Your task to perform on an android device: Open the Play Movies app and select the watchlist tab. Image 0: 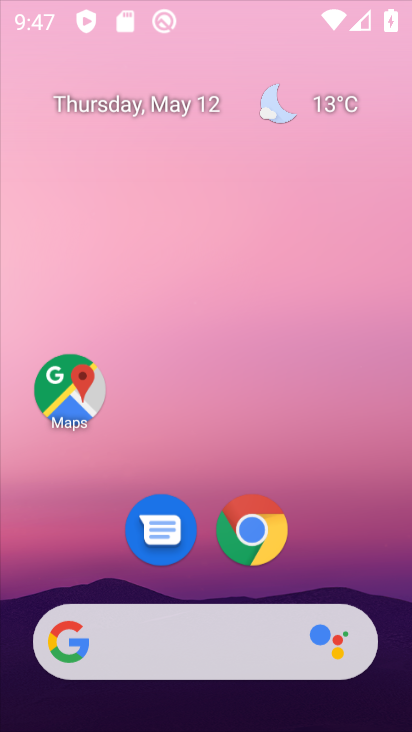
Step 0: drag from (335, 561) to (305, 51)
Your task to perform on an android device: Open the Play Movies app and select the watchlist tab. Image 1: 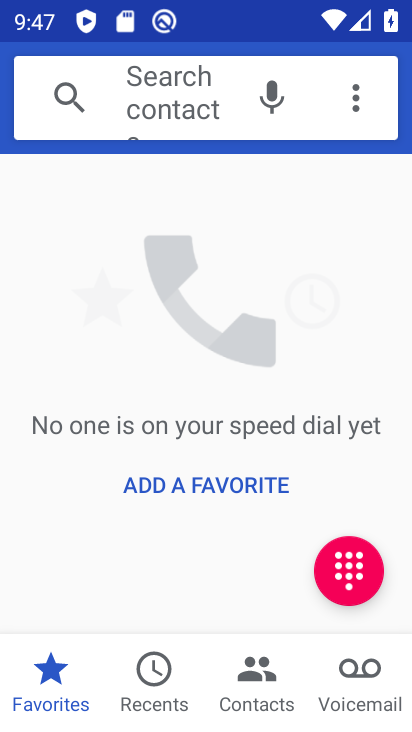
Step 1: press home button
Your task to perform on an android device: Open the Play Movies app and select the watchlist tab. Image 2: 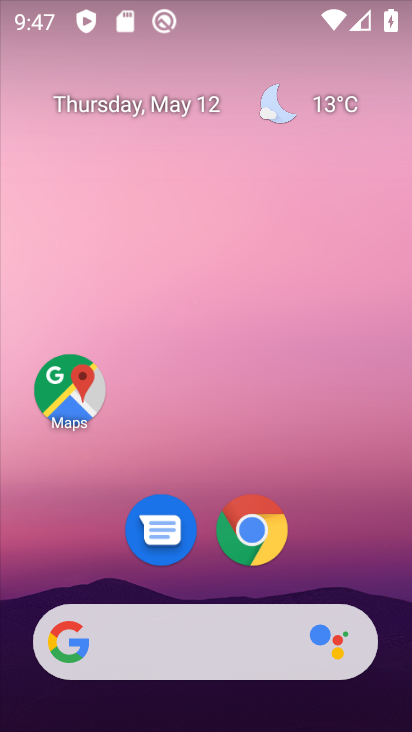
Step 2: drag from (346, 451) to (362, 74)
Your task to perform on an android device: Open the Play Movies app and select the watchlist tab. Image 3: 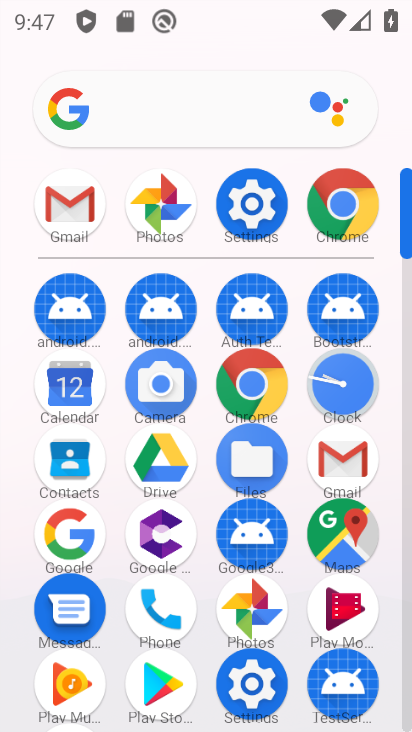
Step 3: click (332, 608)
Your task to perform on an android device: Open the Play Movies app and select the watchlist tab. Image 4: 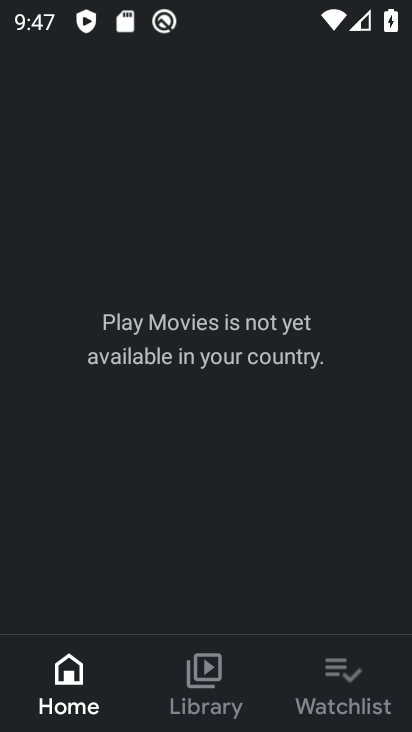
Step 4: click (335, 670)
Your task to perform on an android device: Open the Play Movies app and select the watchlist tab. Image 5: 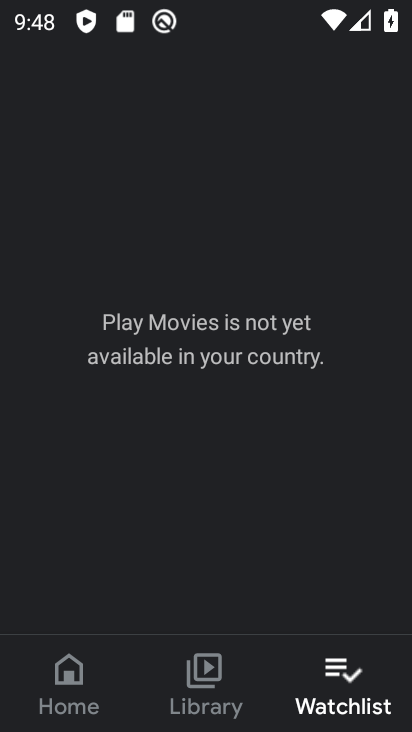
Step 5: task complete